Your task to perform on an android device: snooze an email in the gmail app Image 0: 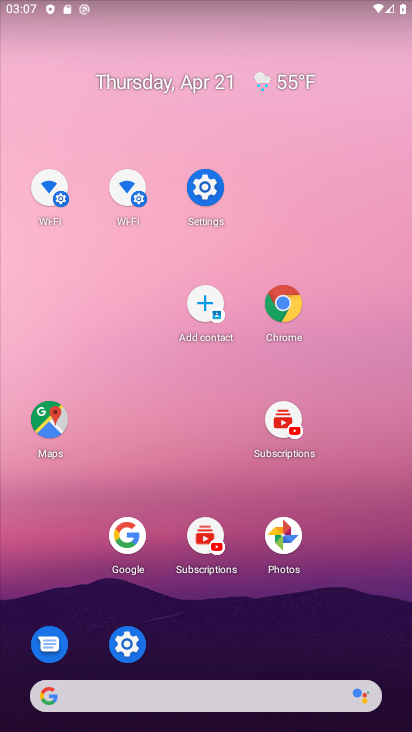
Step 0: drag from (323, 728) to (119, 154)
Your task to perform on an android device: snooze an email in the gmail app Image 1: 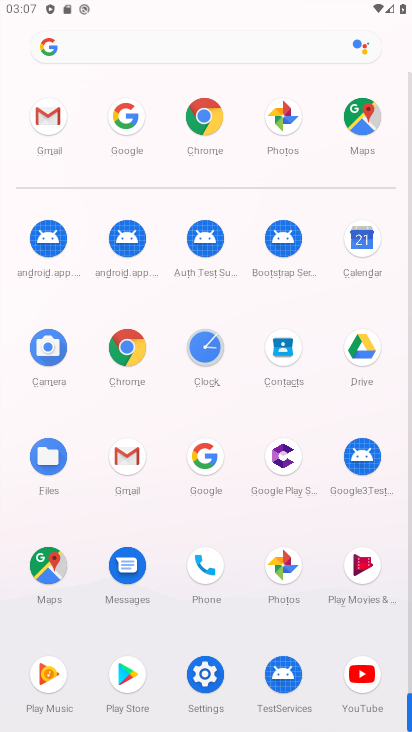
Step 1: click (133, 460)
Your task to perform on an android device: snooze an email in the gmail app Image 2: 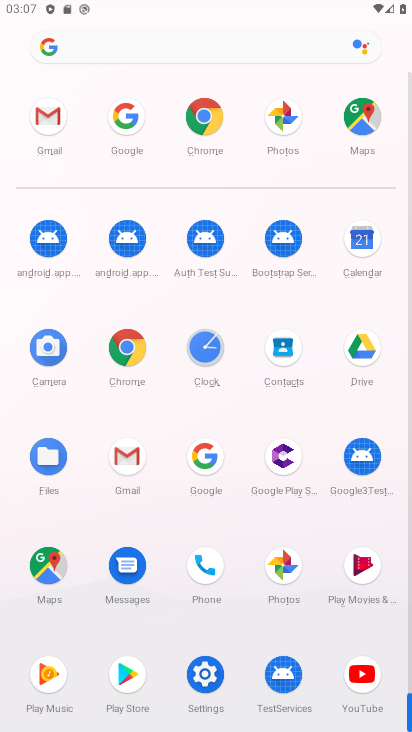
Step 2: click (133, 460)
Your task to perform on an android device: snooze an email in the gmail app Image 3: 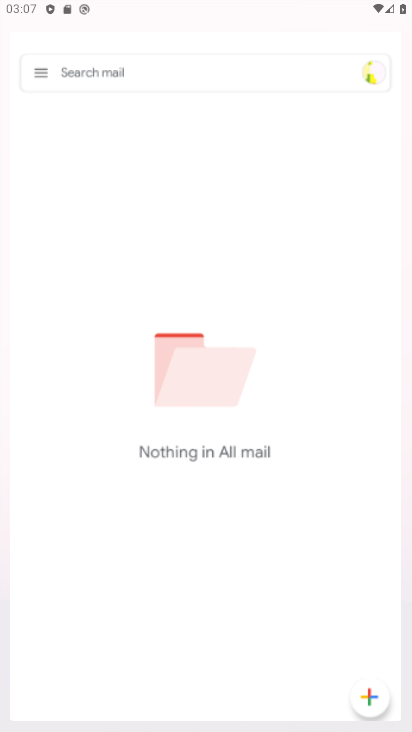
Step 3: click (124, 454)
Your task to perform on an android device: snooze an email in the gmail app Image 4: 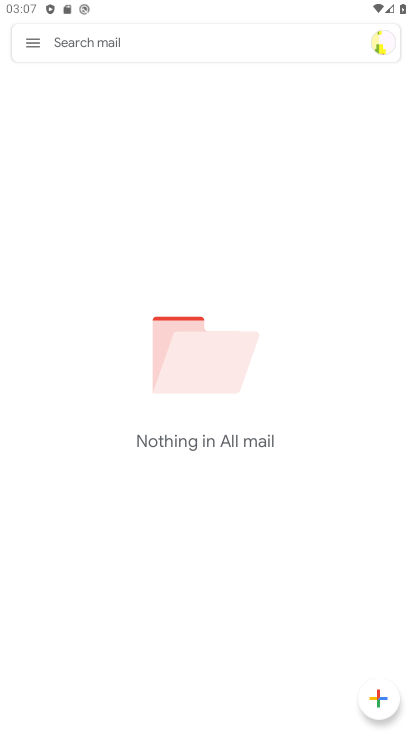
Step 4: click (124, 454)
Your task to perform on an android device: snooze an email in the gmail app Image 5: 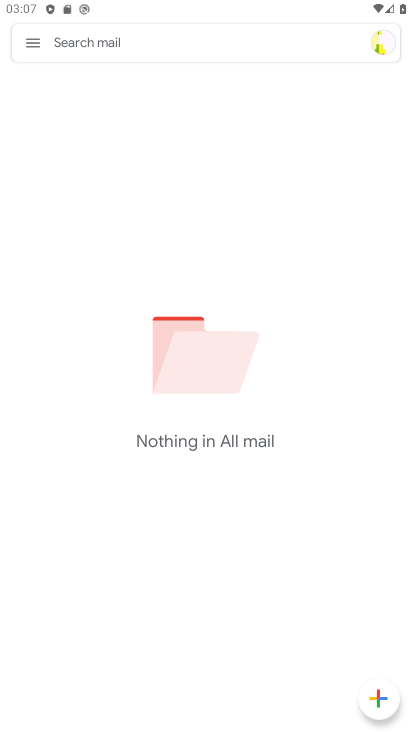
Step 5: click (22, 36)
Your task to perform on an android device: snooze an email in the gmail app Image 6: 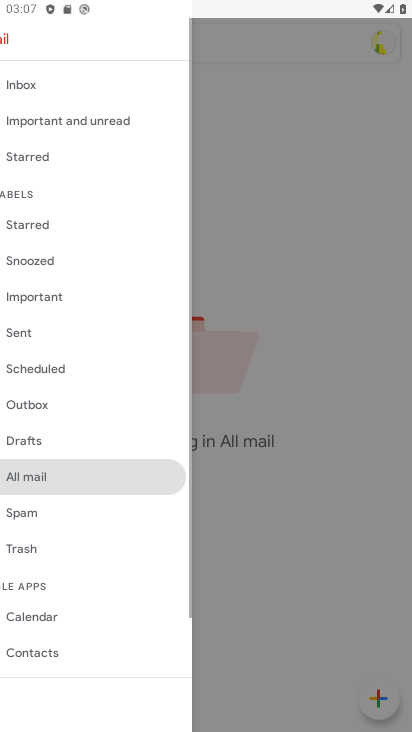
Step 6: click (22, 36)
Your task to perform on an android device: snooze an email in the gmail app Image 7: 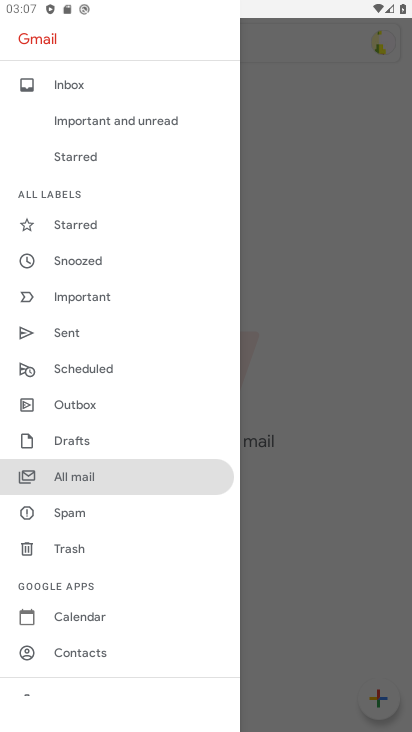
Step 7: click (113, 471)
Your task to perform on an android device: snooze an email in the gmail app Image 8: 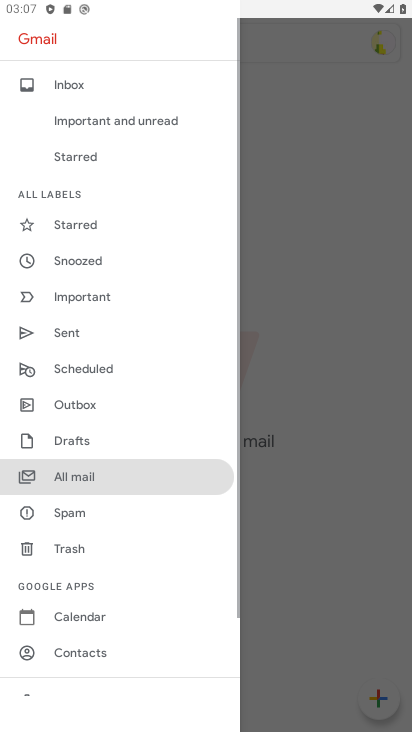
Step 8: click (113, 471)
Your task to perform on an android device: snooze an email in the gmail app Image 9: 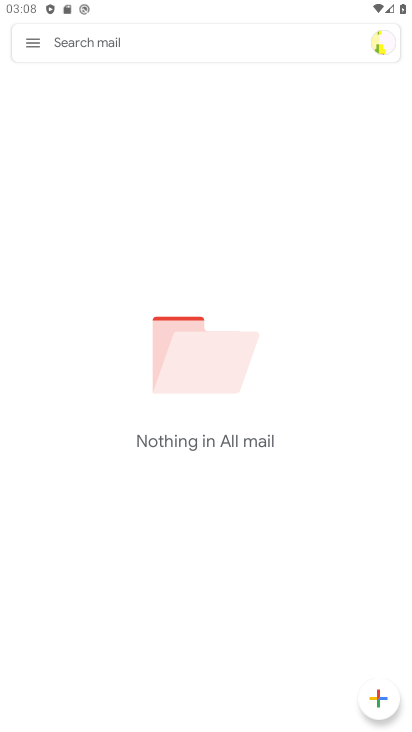
Step 9: click (31, 40)
Your task to perform on an android device: snooze an email in the gmail app Image 10: 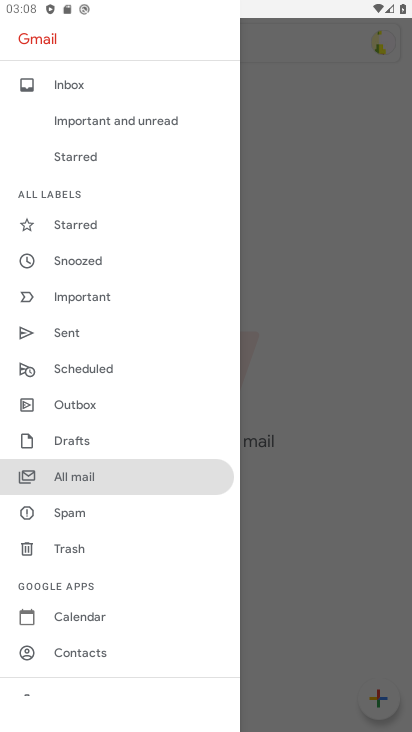
Step 10: click (93, 261)
Your task to perform on an android device: snooze an email in the gmail app Image 11: 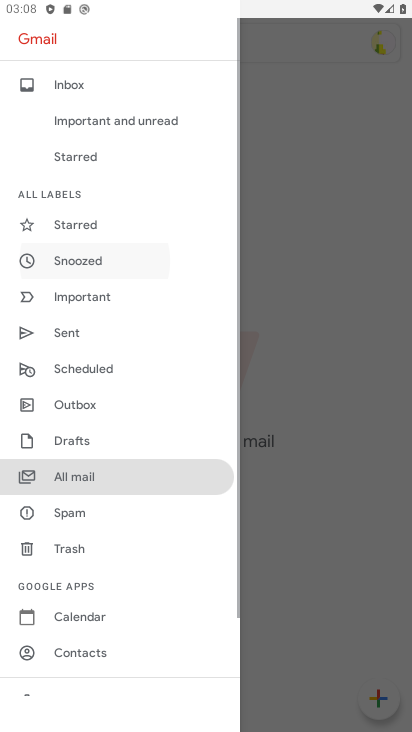
Step 11: click (93, 261)
Your task to perform on an android device: snooze an email in the gmail app Image 12: 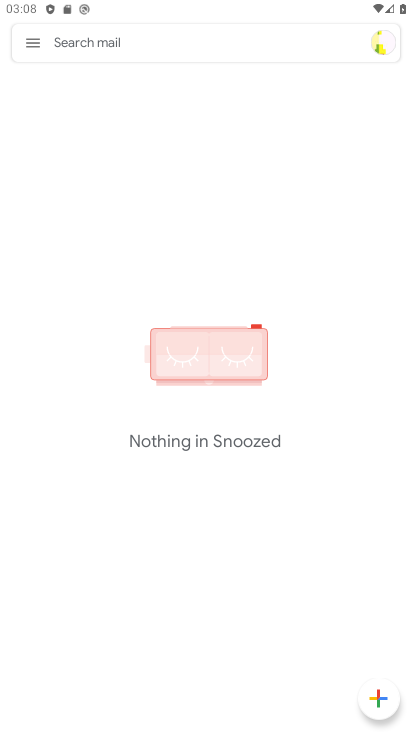
Step 12: click (94, 262)
Your task to perform on an android device: snooze an email in the gmail app Image 13: 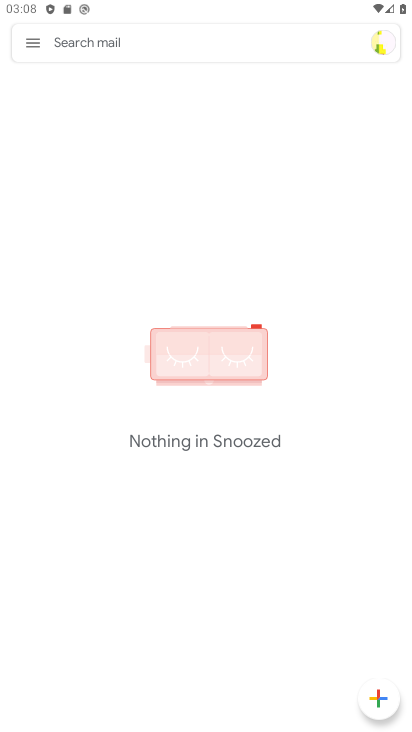
Step 13: task complete